Your task to perform on an android device: Open Google Maps Image 0: 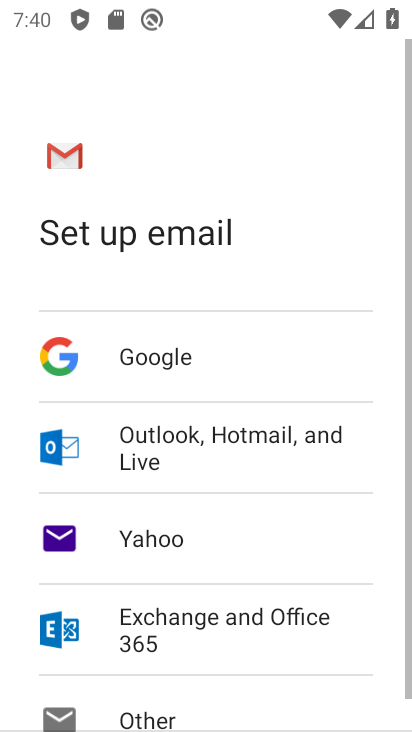
Step 0: drag from (394, 701) to (331, 174)
Your task to perform on an android device: Open Google Maps Image 1: 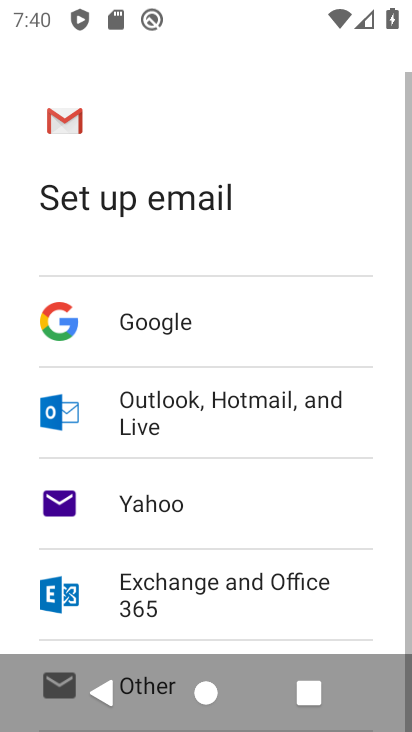
Step 1: press home button
Your task to perform on an android device: Open Google Maps Image 2: 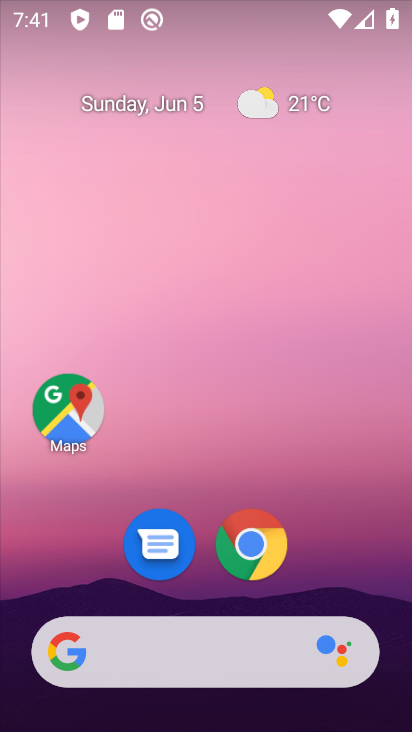
Step 2: click (406, 703)
Your task to perform on an android device: Open Google Maps Image 3: 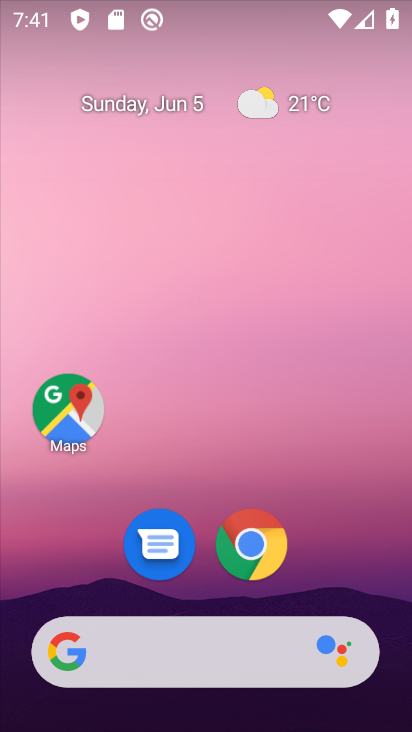
Step 3: click (72, 399)
Your task to perform on an android device: Open Google Maps Image 4: 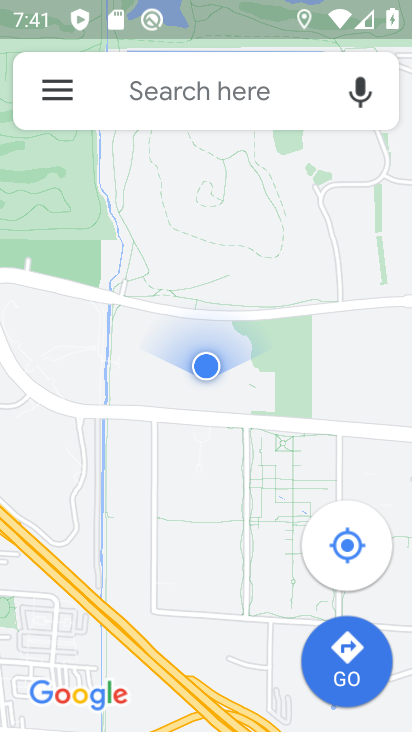
Step 4: task complete